Your task to perform on an android device: turn notification dots off Image 0: 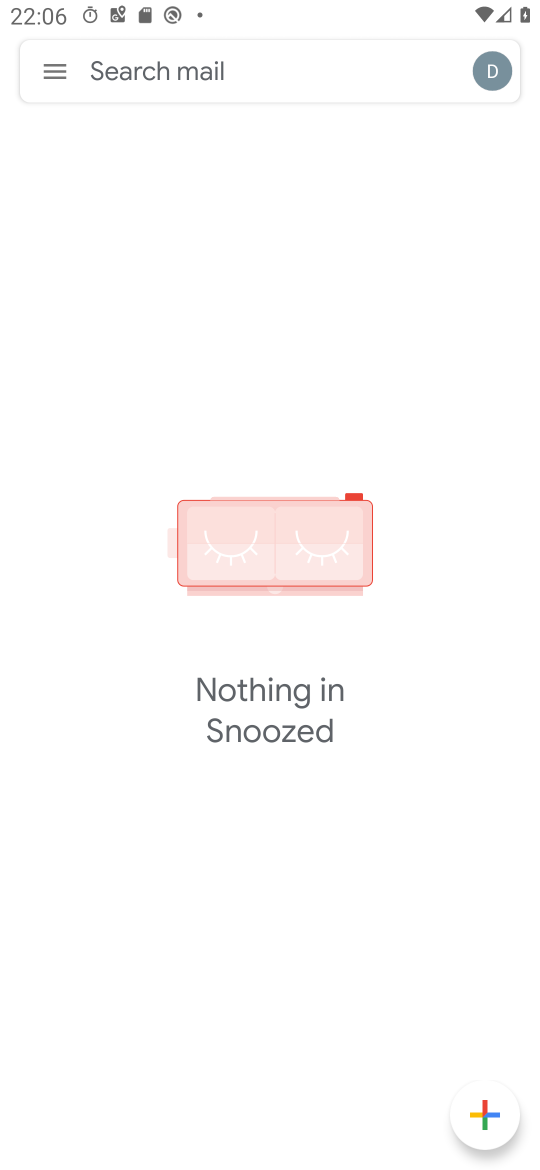
Step 0: press home button
Your task to perform on an android device: turn notification dots off Image 1: 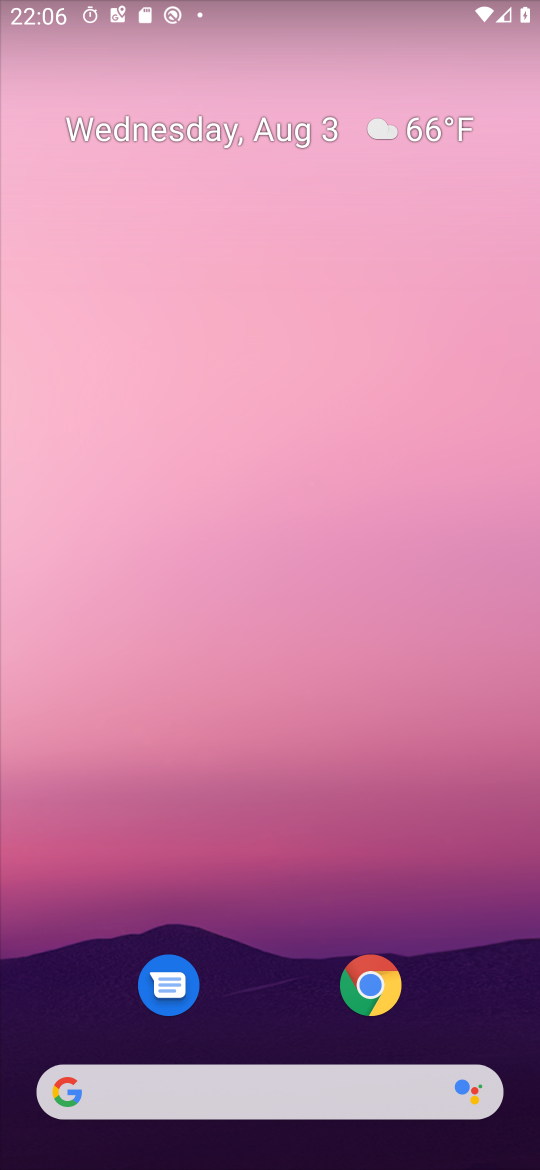
Step 1: drag from (245, 977) to (245, 280)
Your task to perform on an android device: turn notification dots off Image 2: 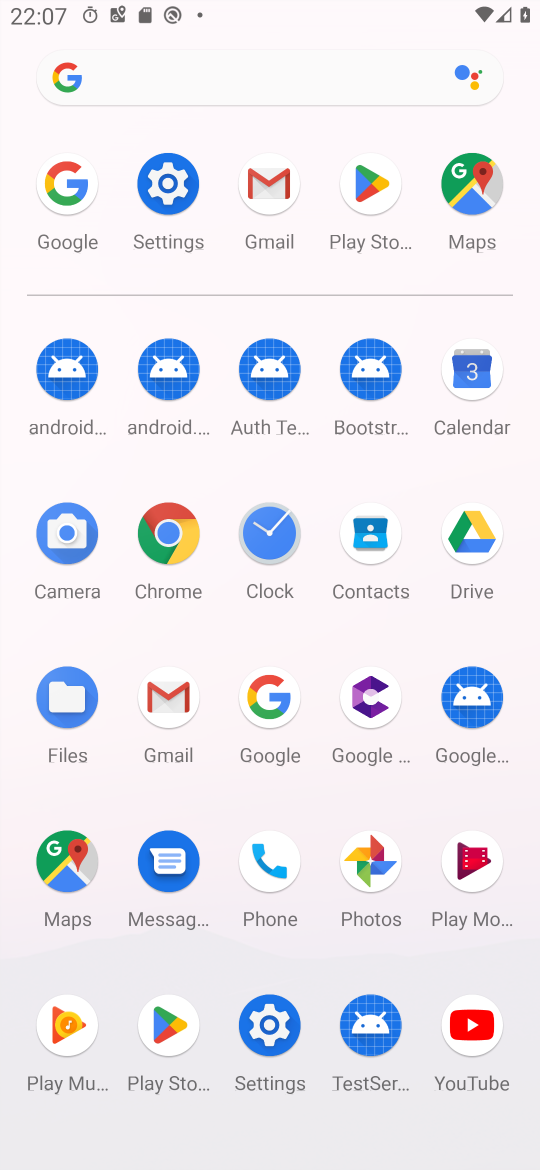
Step 2: click (159, 189)
Your task to perform on an android device: turn notification dots off Image 3: 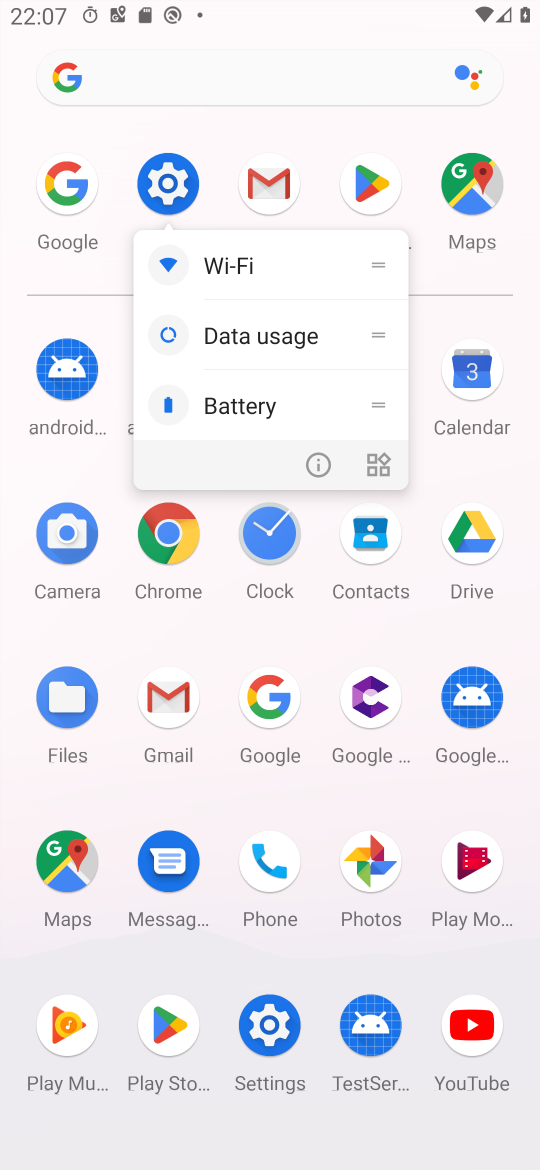
Step 3: click (159, 189)
Your task to perform on an android device: turn notification dots off Image 4: 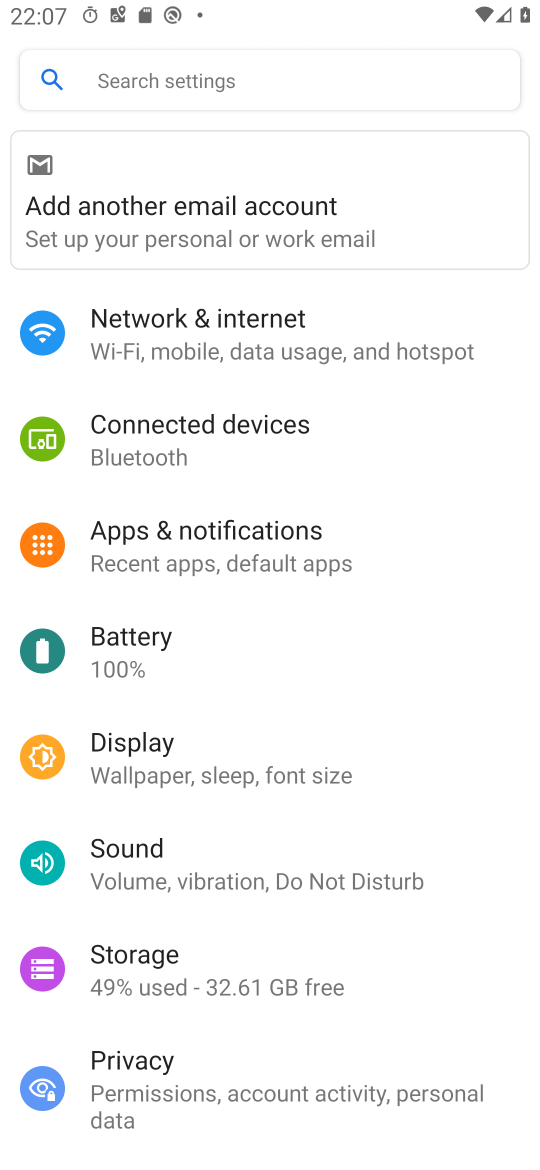
Step 4: click (273, 530)
Your task to perform on an android device: turn notification dots off Image 5: 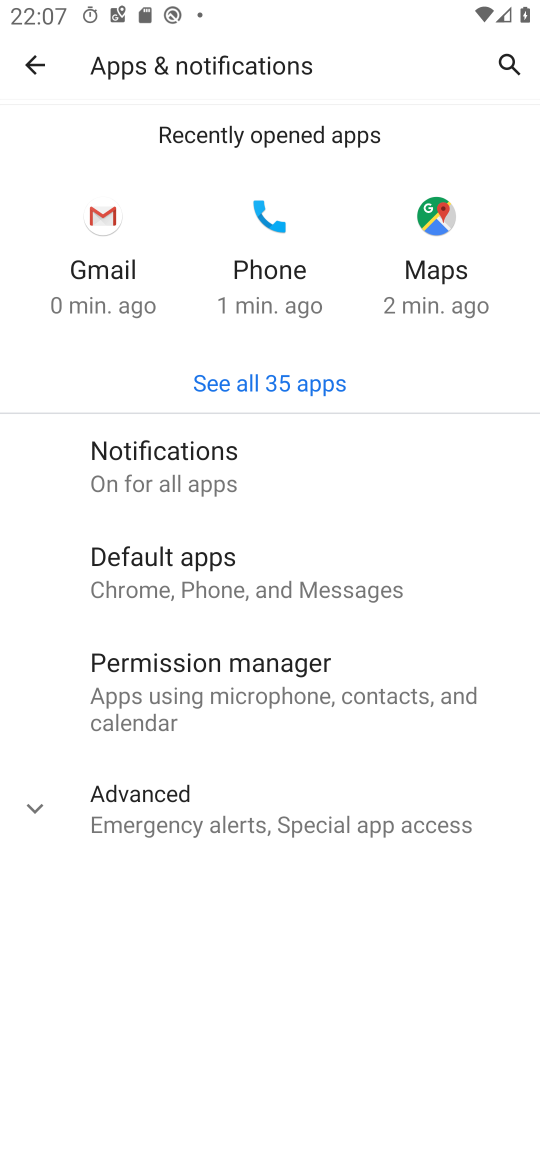
Step 5: click (259, 448)
Your task to perform on an android device: turn notification dots off Image 6: 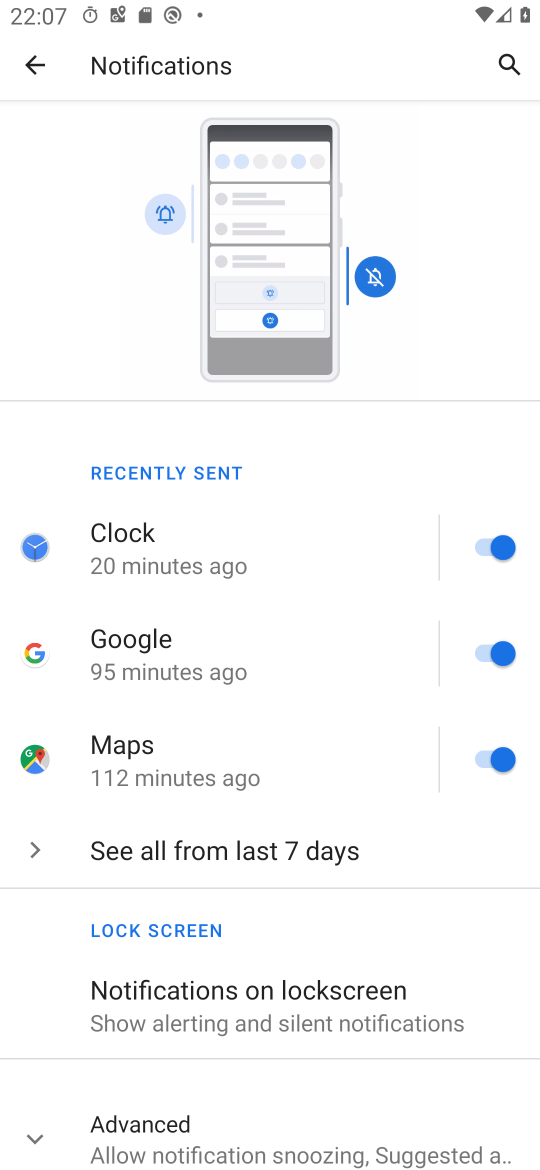
Step 6: drag from (289, 966) to (289, 457)
Your task to perform on an android device: turn notification dots off Image 7: 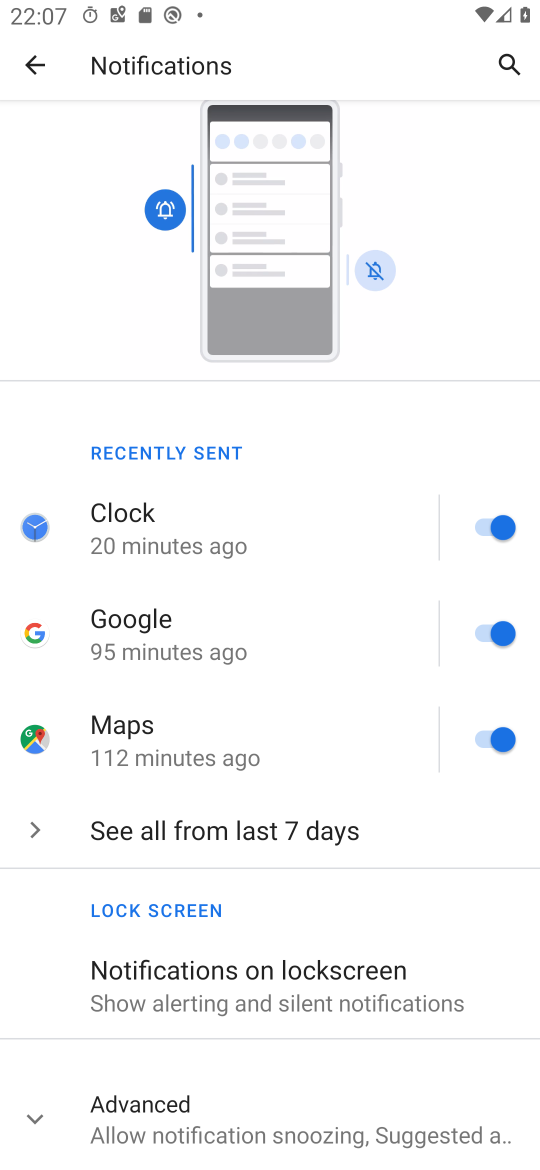
Step 7: drag from (304, 949) to (317, 447)
Your task to perform on an android device: turn notification dots off Image 8: 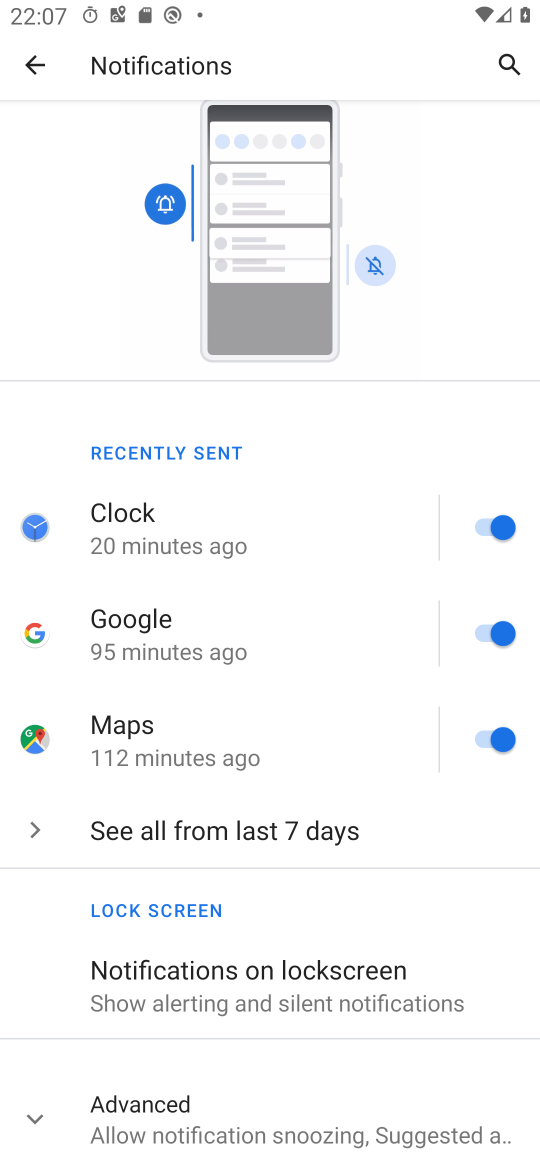
Step 8: drag from (306, 1032) to (325, 576)
Your task to perform on an android device: turn notification dots off Image 9: 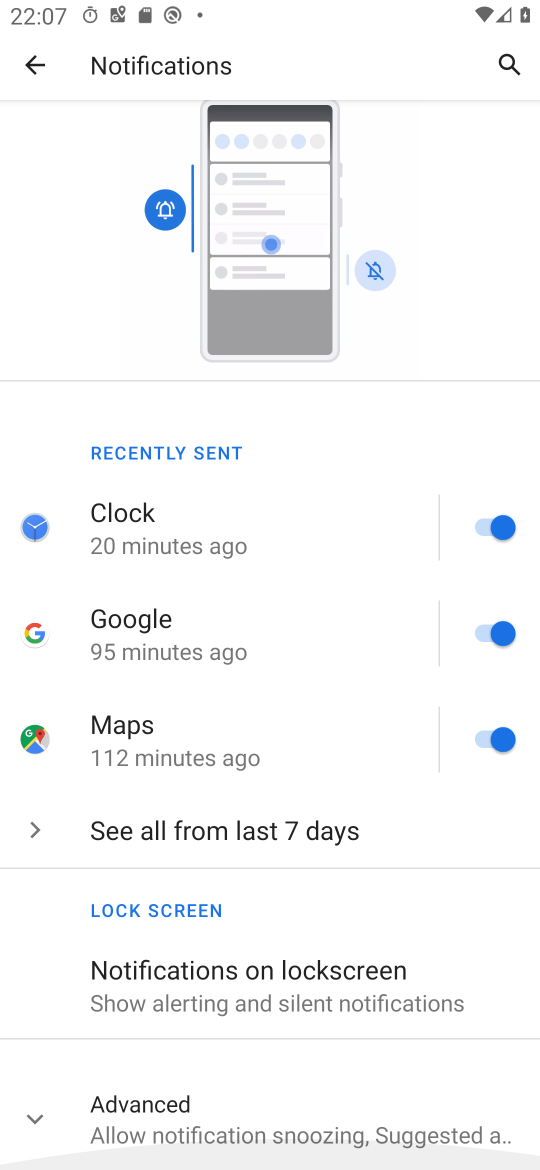
Step 9: click (190, 1129)
Your task to perform on an android device: turn notification dots off Image 10: 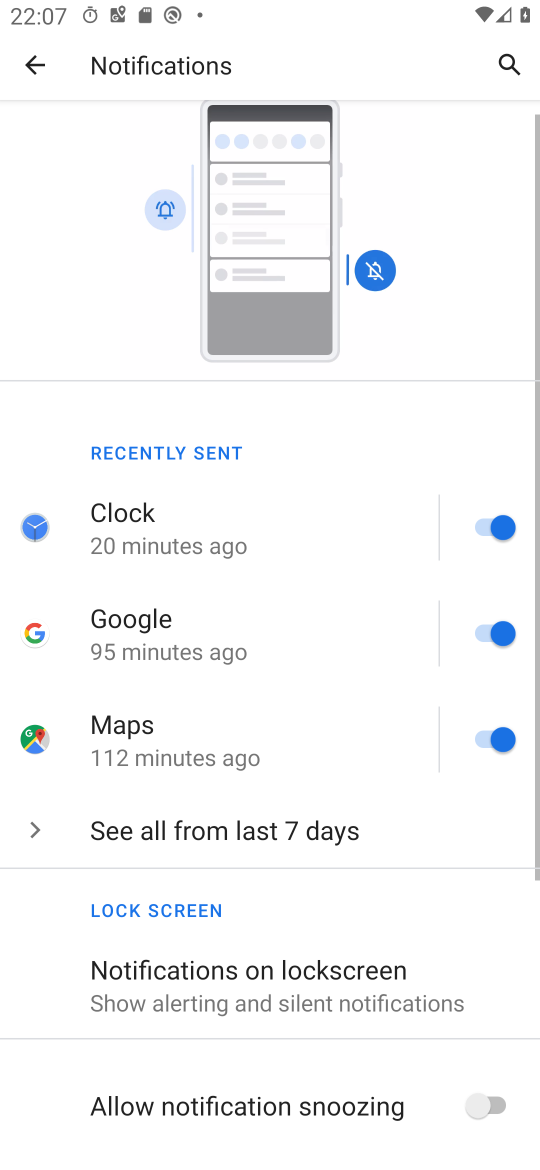
Step 10: task complete